Your task to perform on an android device: Open the web browser Image 0: 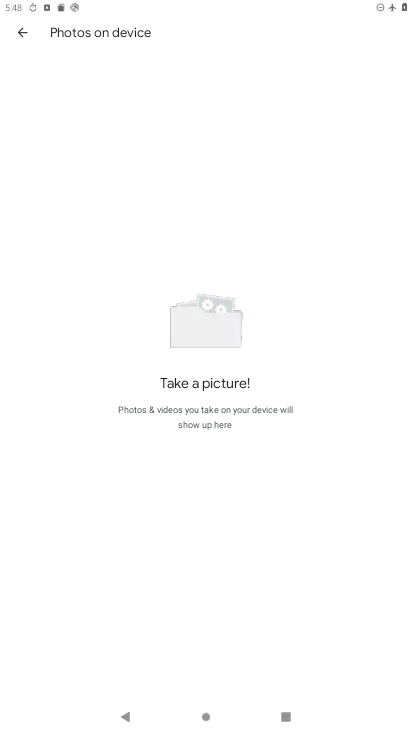
Step 0: press home button
Your task to perform on an android device: Open the web browser Image 1: 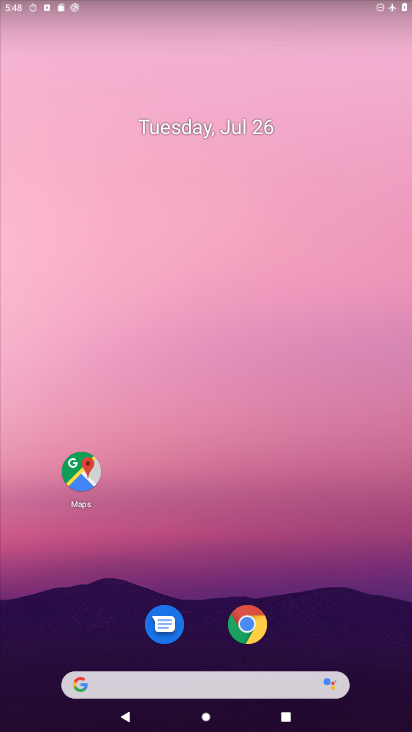
Step 1: drag from (215, 570) to (235, 126)
Your task to perform on an android device: Open the web browser Image 2: 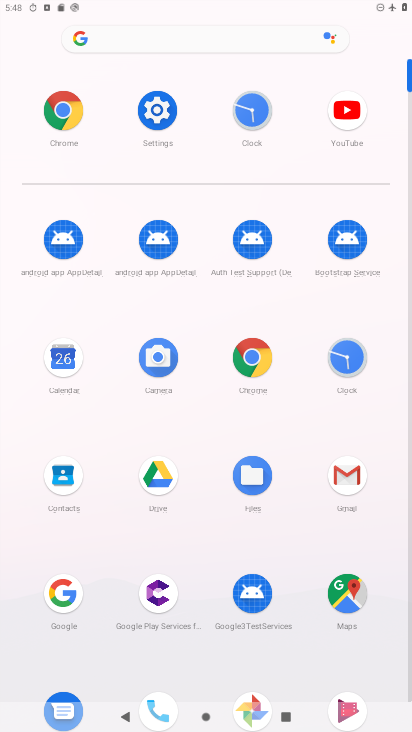
Step 2: click (245, 364)
Your task to perform on an android device: Open the web browser Image 3: 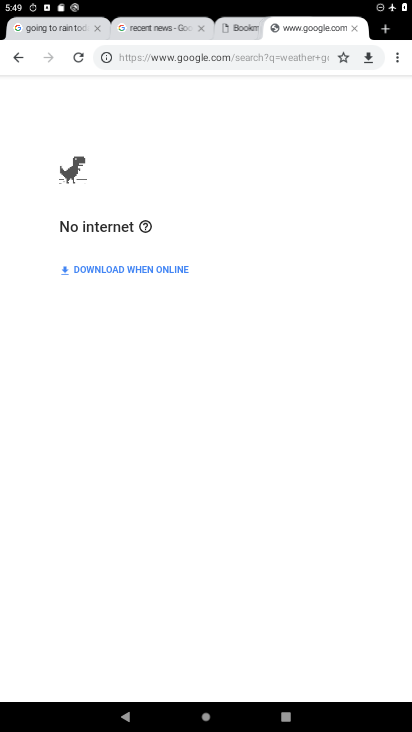
Step 3: task complete